Your task to perform on an android device: Go to Google Image 0: 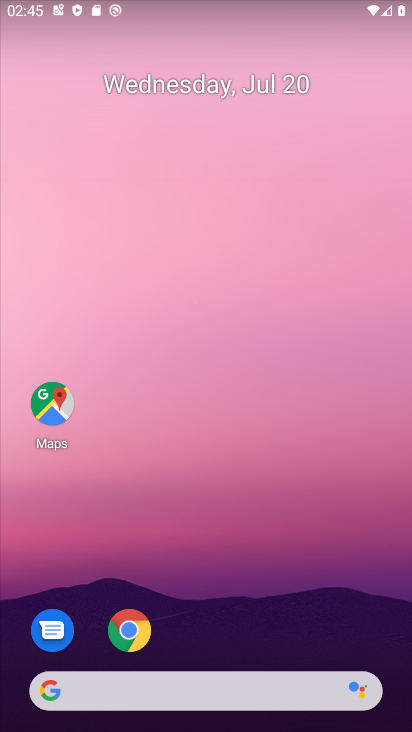
Step 0: drag from (359, 633) to (395, 240)
Your task to perform on an android device: Go to Google Image 1: 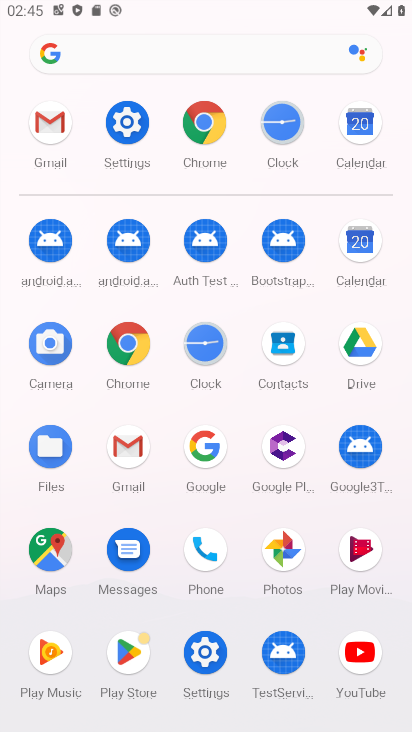
Step 1: click (207, 446)
Your task to perform on an android device: Go to Google Image 2: 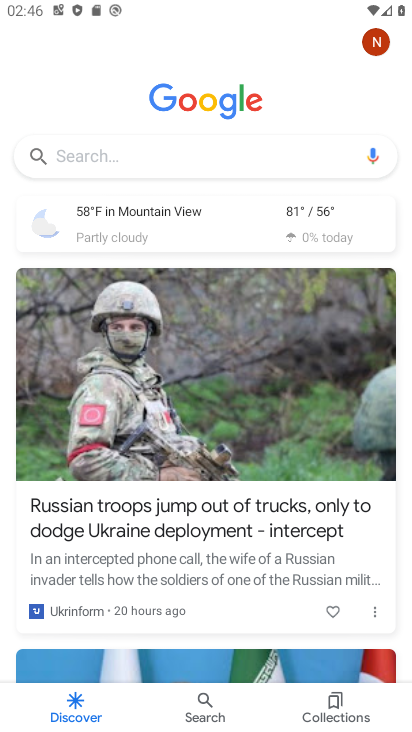
Step 2: task complete